Your task to perform on an android device: Open the stopwatch Image 0: 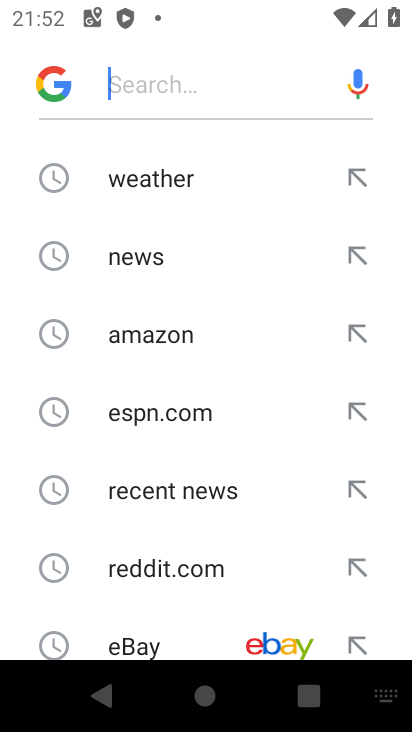
Step 0: press home button
Your task to perform on an android device: Open the stopwatch Image 1: 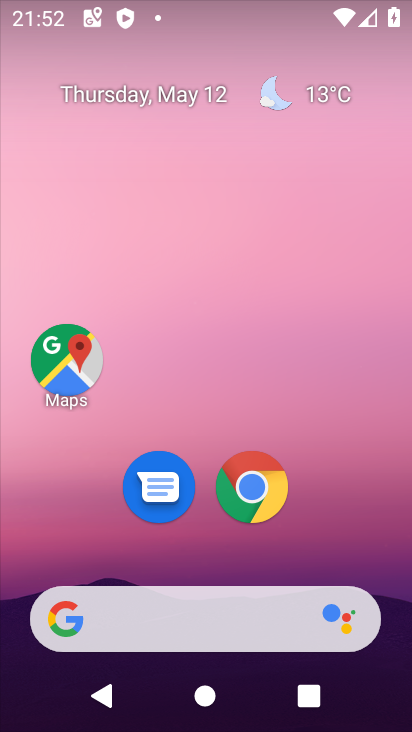
Step 1: drag from (198, 536) to (246, 21)
Your task to perform on an android device: Open the stopwatch Image 2: 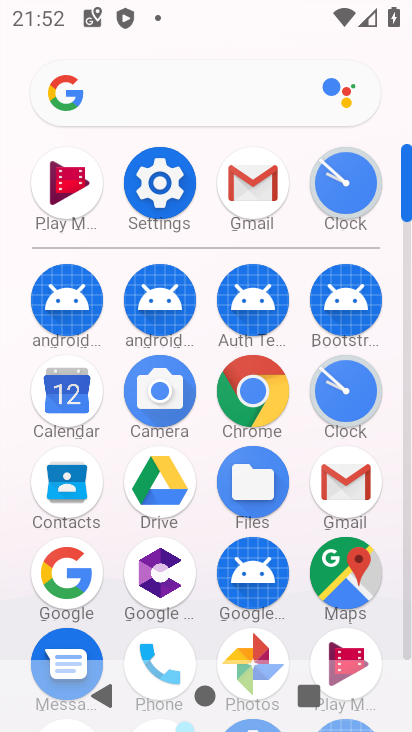
Step 2: click (346, 163)
Your task to perform on an android device: Open the stopwatch Image 3: 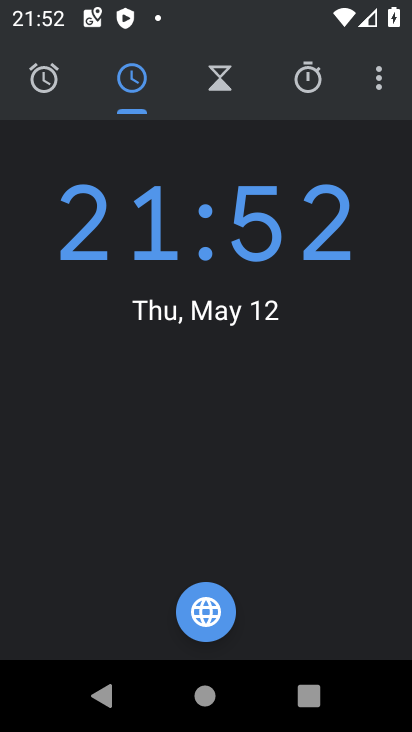
Step 3: click (320, 97)
Your task to perform on an android device: Open the stopwatch Image 4: 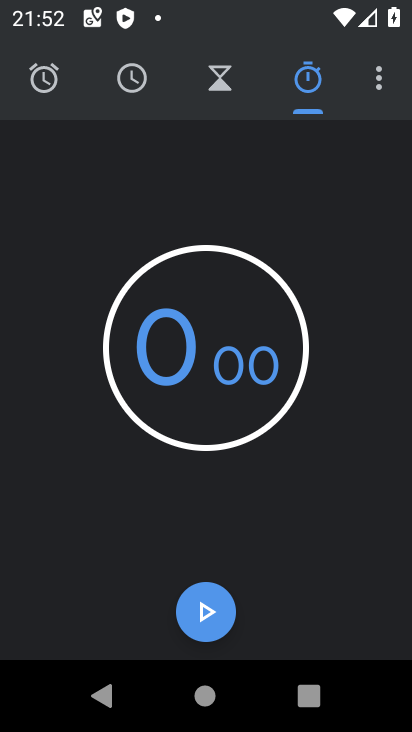
Step 4: task complete